Your task to perform on an android device: Open calendar and show me the second week of next month Image 0: 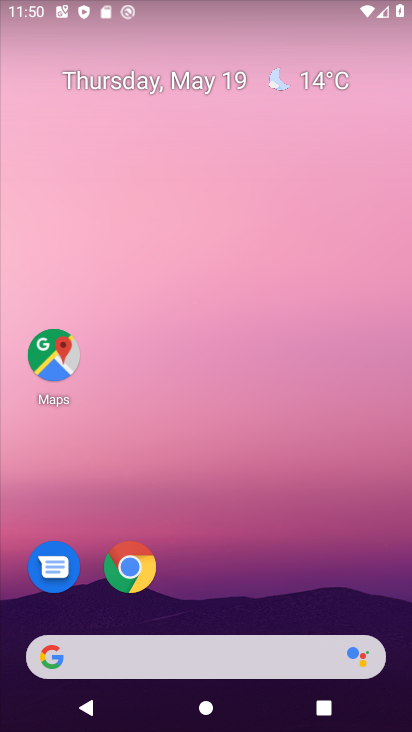
Step 0: drag from (347, 596) to (290, 21)
Your task to perform on an android device: Open calendar and show me the second week of next month Image 1: 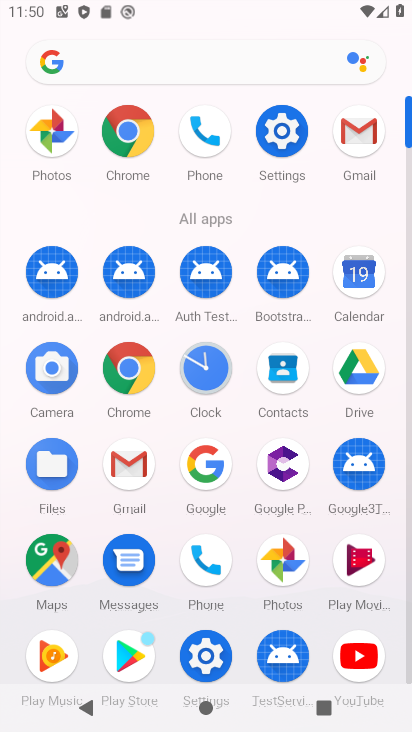
Step 1: click (367, 276)
Your task to perform on an android device: Open calendar and show me the second week of next month Image 2: 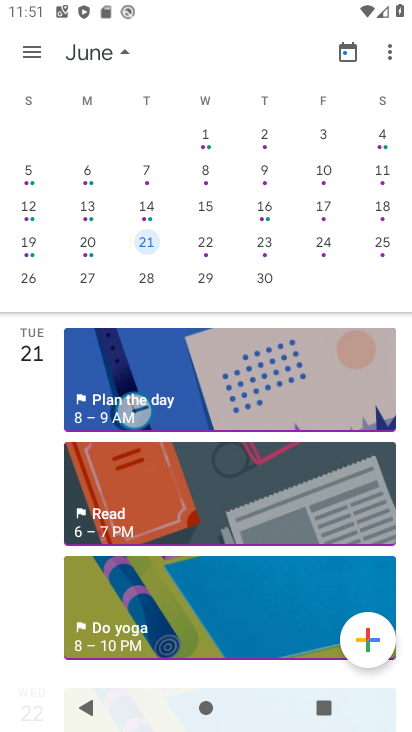
Step 2: drag from (365, 238) to (8, 115)
Your task to perform on an android device: Open calendar and show me the second week of next month Image 3: 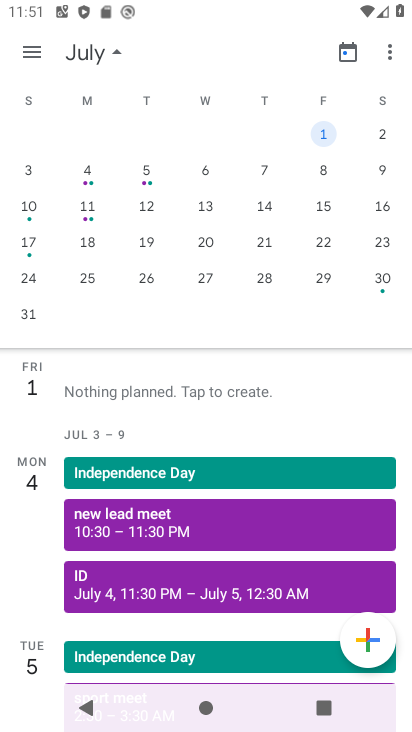
Step 3: click (271, 207)
Your task to perform on an android device: Open calendar and show me the second week of next month Image 4: 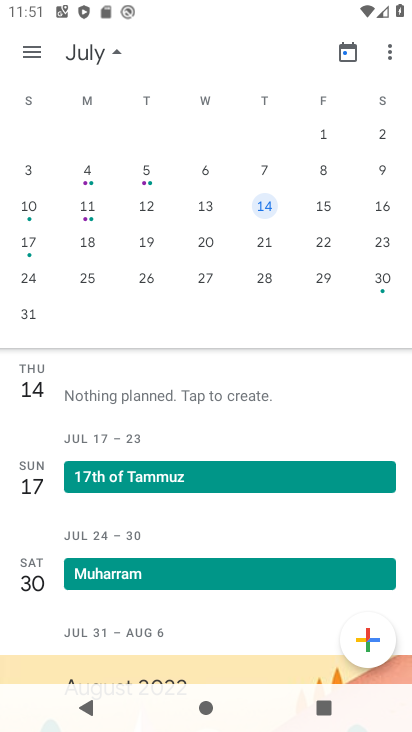
Step 4: task complete